Your task to perform on an android device: Open battery settings Image 0: 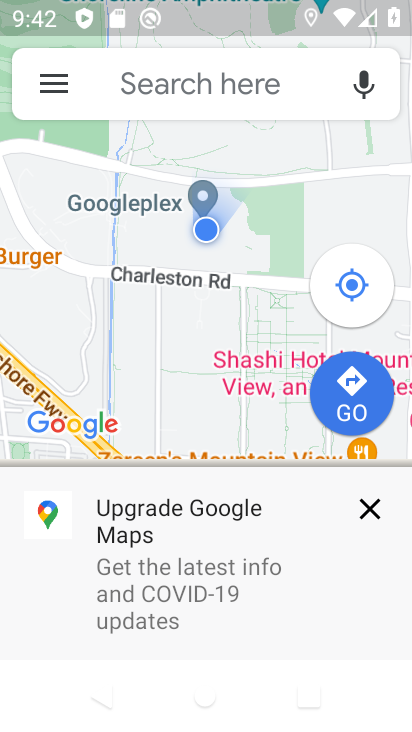
Step 0: press home button
Your task to perform on an android device: Open battery settings Image 1: 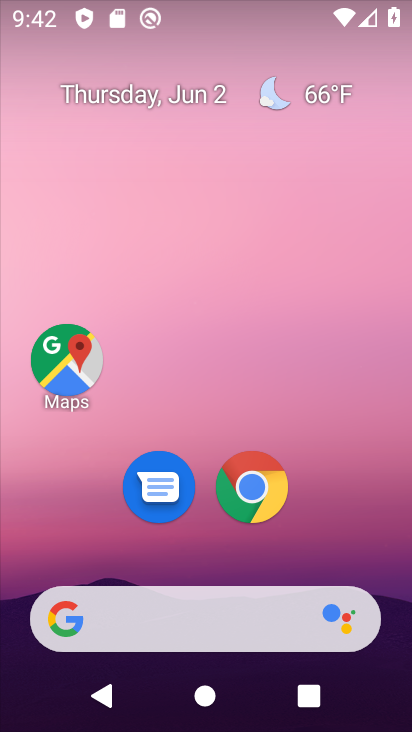
Step 1: drag from (236, 728) to (163, 71)
Your task to perform on an android device: Open battery settings Image 2: 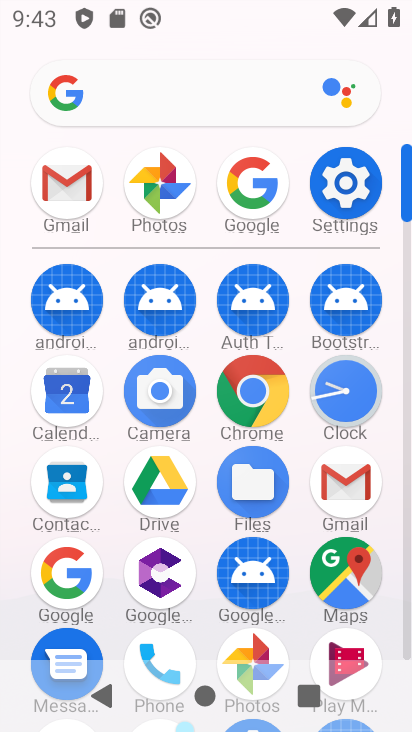
Step 2: click (361, 180)
Your task to perform on an android device: Open battery settings Image 3: 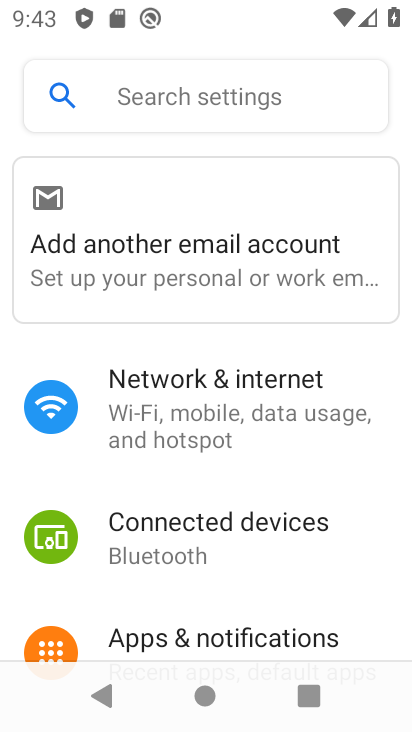
Step 3: drag from (219, 639) to (203, 194)
Your task to perform on an android device: Open battery settings Image 4: 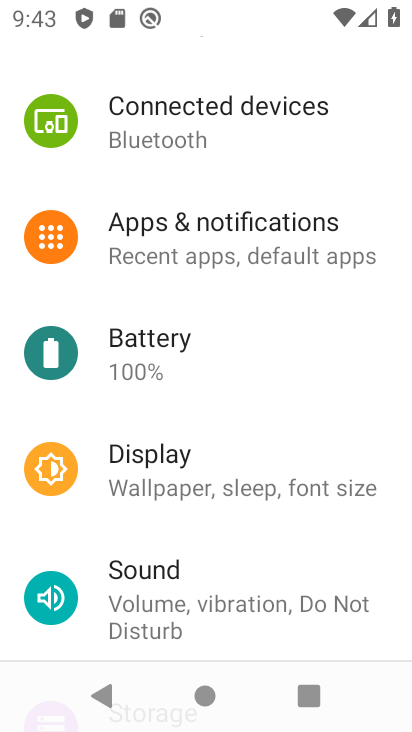
Step 4: click (139, 361)
Your task to perform on an android device: Open battery settings Image 5: 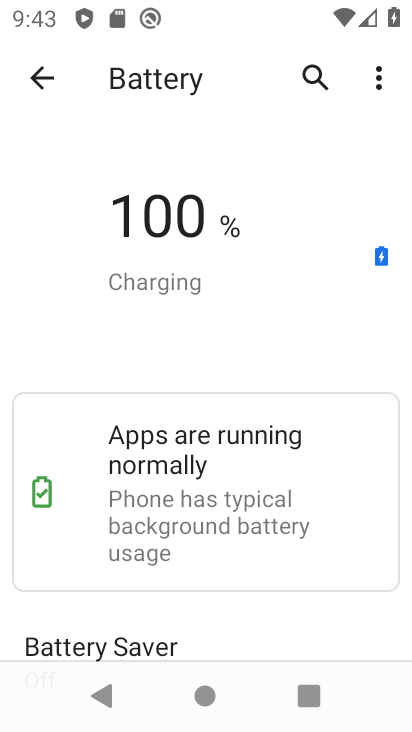
Step 5: task complete